Your task to perform on an android device: Open Google Chrome and click the shortcut for Amazon.com Image 0: 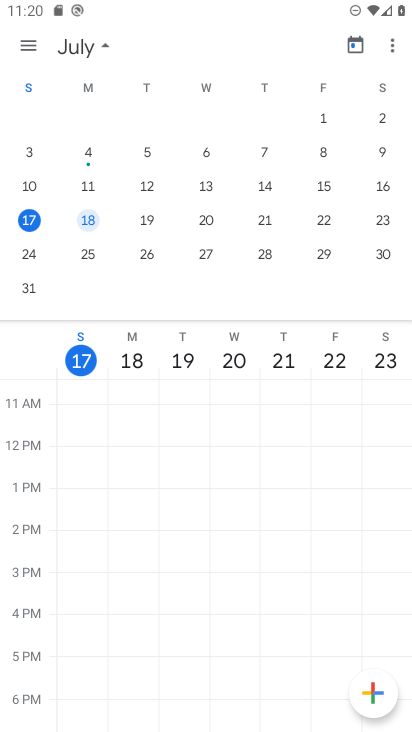
Step 0: press home button
Your task to perform on an android device: Open Google Chrome and click the shortcut for Amazon.com Image 1: 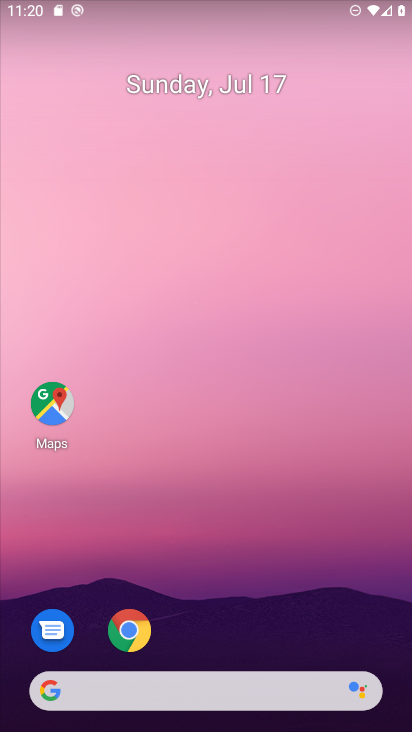
Step 1: click (126, 630)
Your task to perform on an android device: Open Google Chrome and click the shortcut for Amazon.com Image 2: 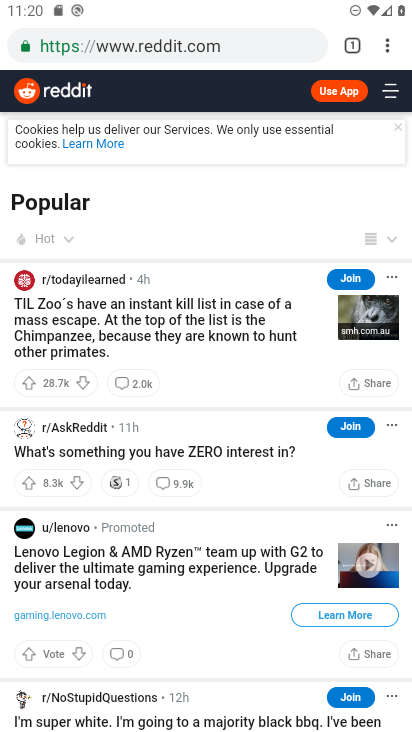
Step 2: press back button
Your task to perform on an android device: Open Google Chrome and click the shortcut for Amazon.com Image 3: 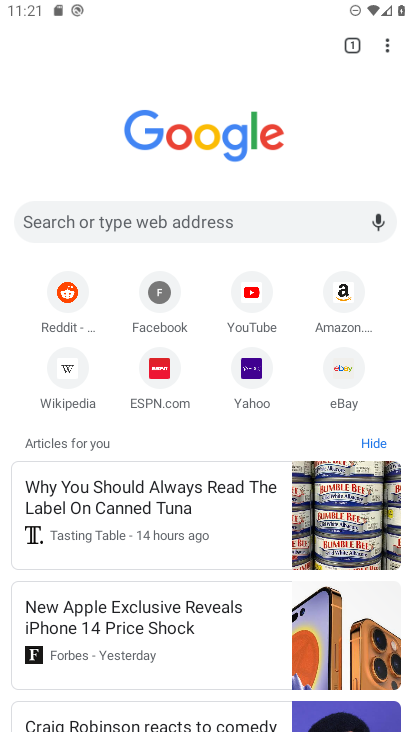
Step 3: click (337, 297)
Your task to perform on an android device: Open Google Chrome and click the shortcut for Amazon.com Image 4: 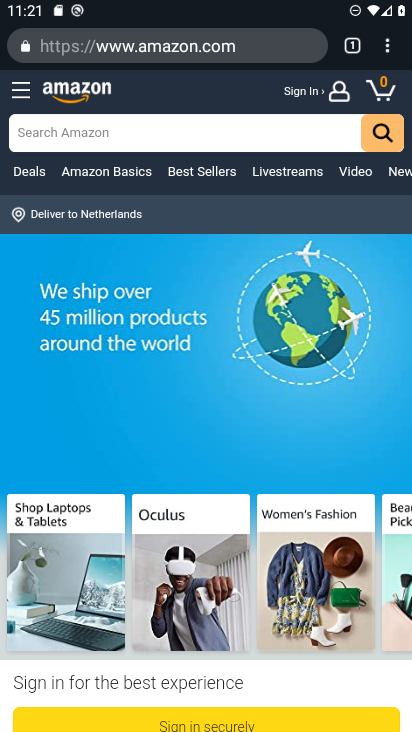
Step 4: task complete